Your task to perform on an android device: open app "Google Sheets" Image 0: 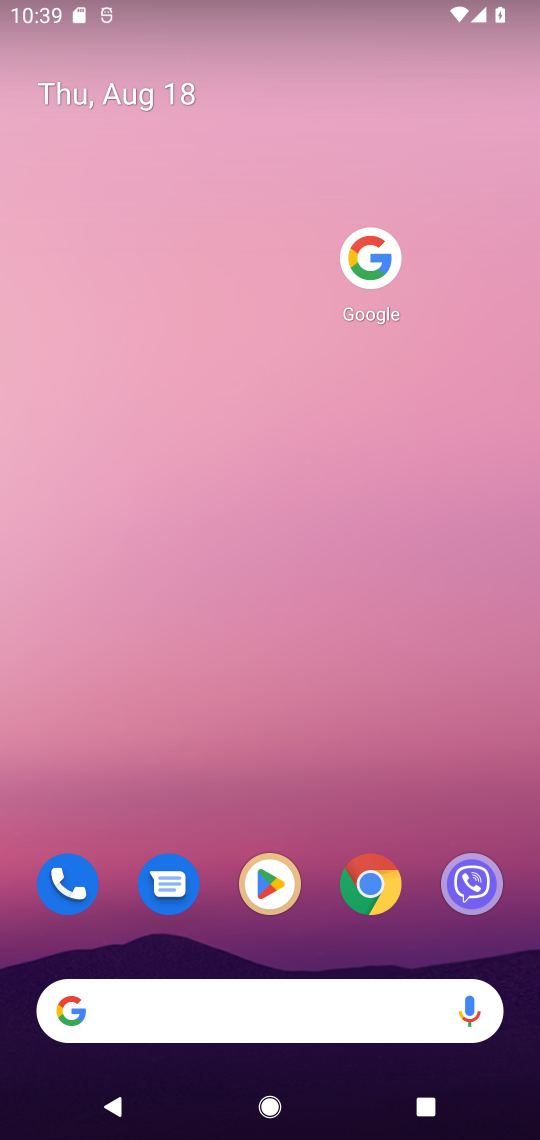
Step 0: click (224, 1011)
Your task to perform on an android device: open app "Google Sheets" Image 1: 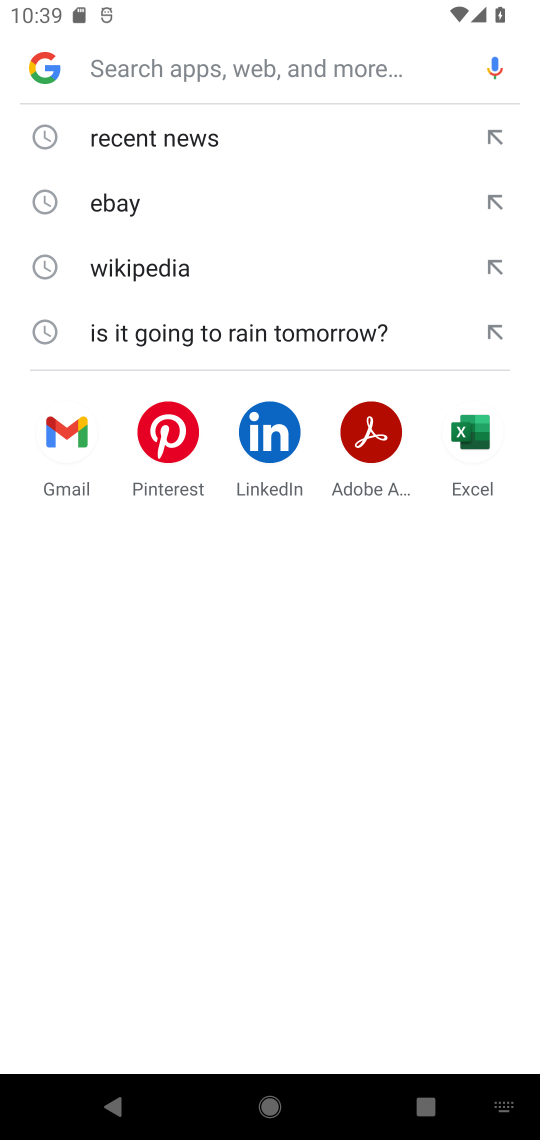
Step 1: type "google sheet"
Your task to perform on an android device: open app "Google Sheets" Image 2: 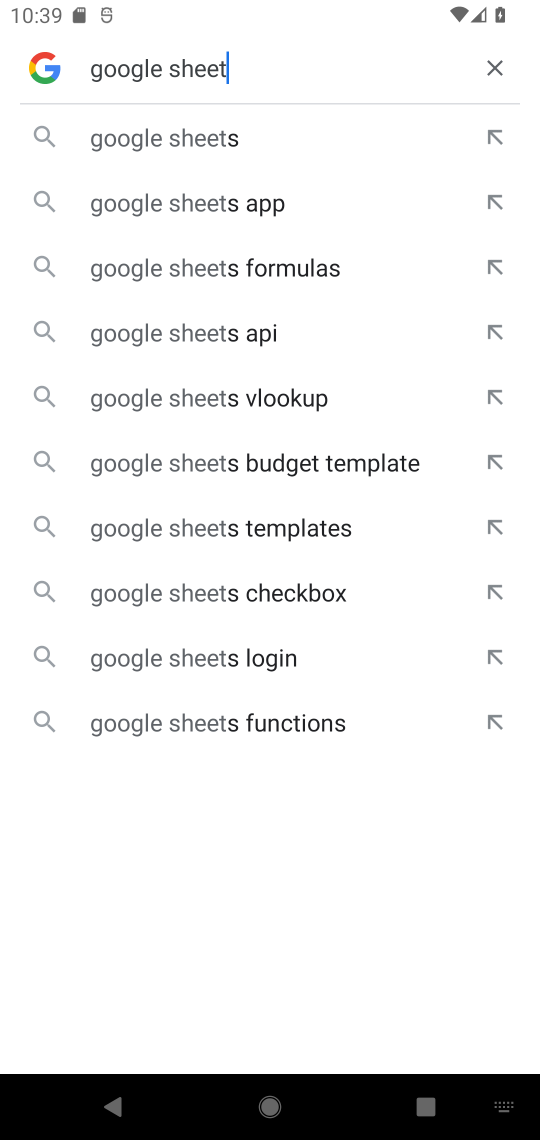
Step 2: click (285, 148)
Your task to perform on an android device: open app "Google Sheets" Image 3: 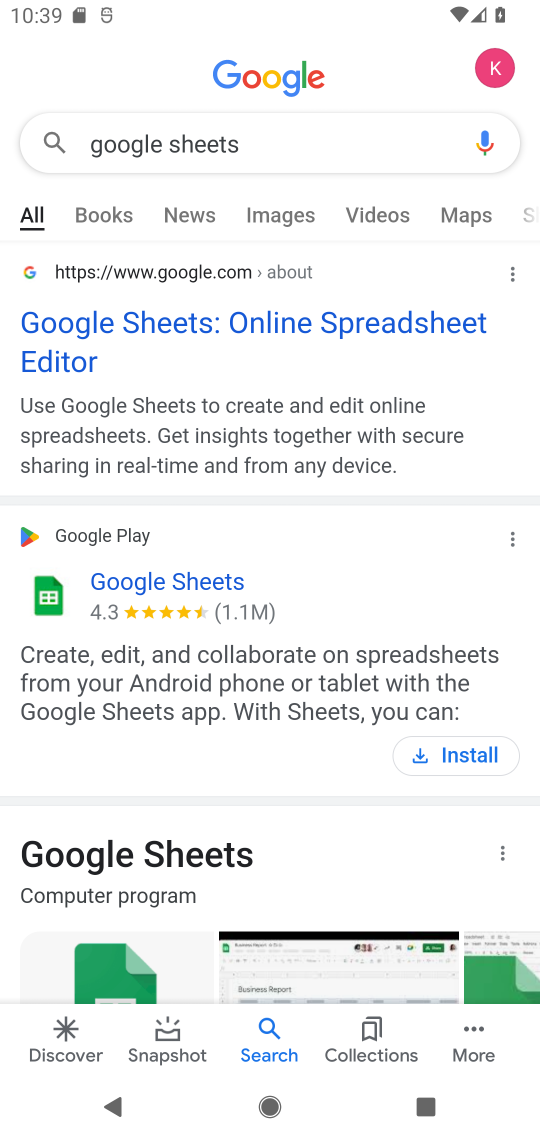
Step 3: click (150, 577)
Your task to perform on an android device: open app "Google Sheets" Image 4: 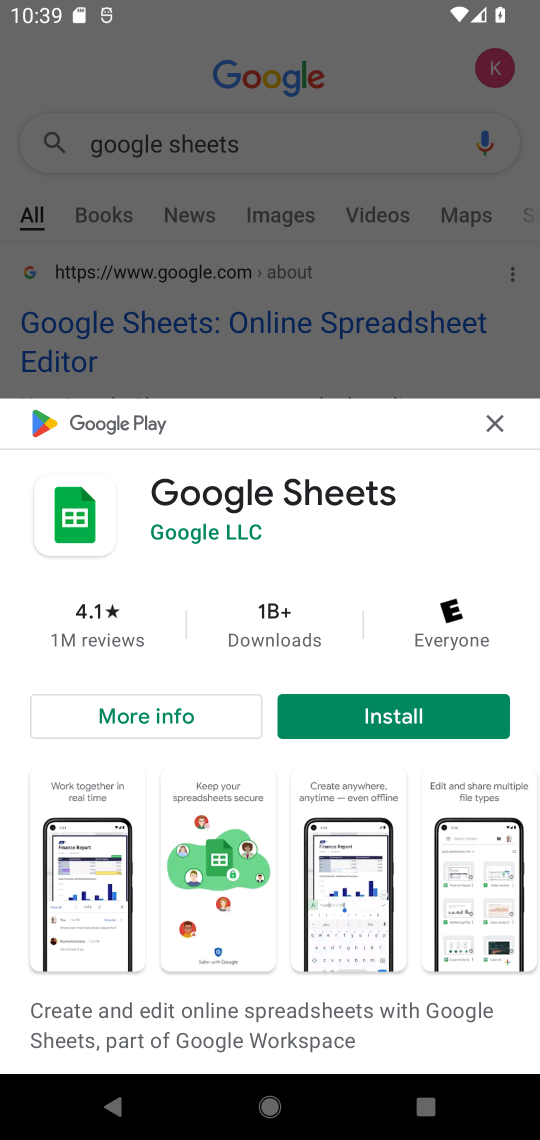
Step 4: click (365, 700)
Your task to perform on an android device: open app "Google Sheets" Image 5: 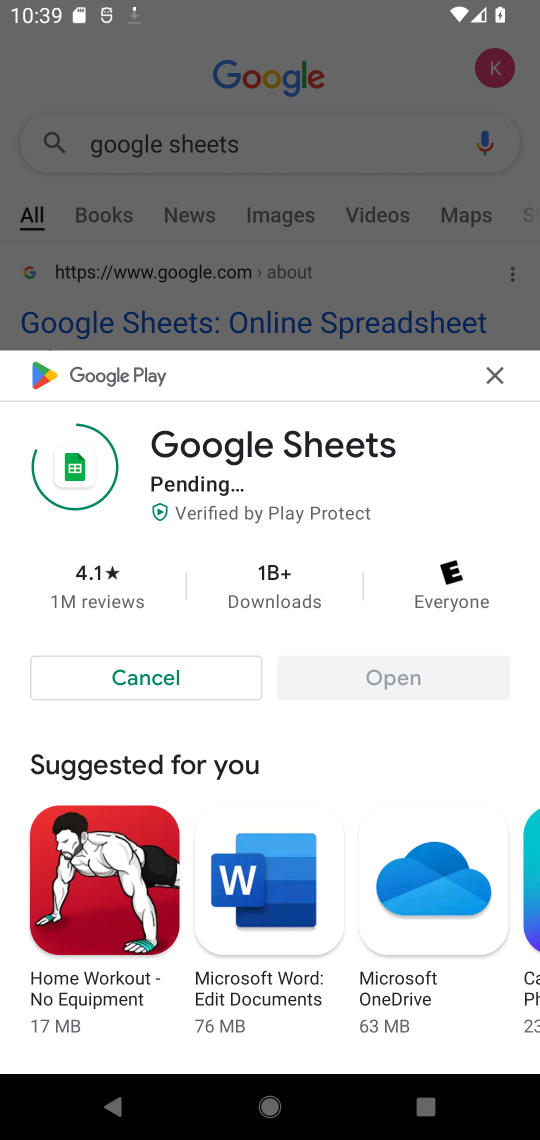
Step 5: task complete